Your task to perform on an android device: Search for vegetarian restaurants on Maps Image 0: 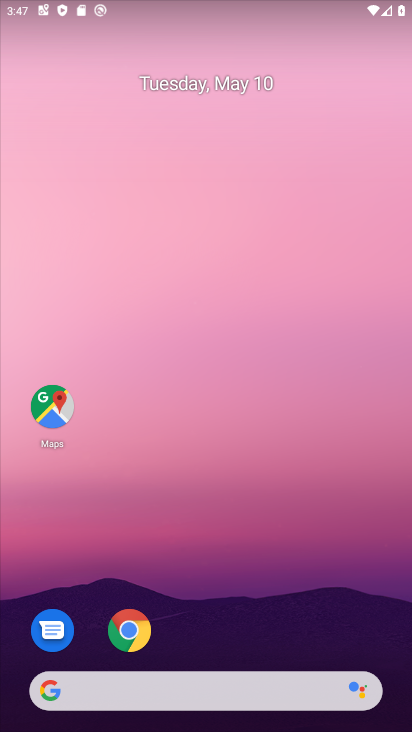
Step 0: click (62, 406)
Your task to perform on an android device: Search for vegetarian restaurants on Maps Image 1: 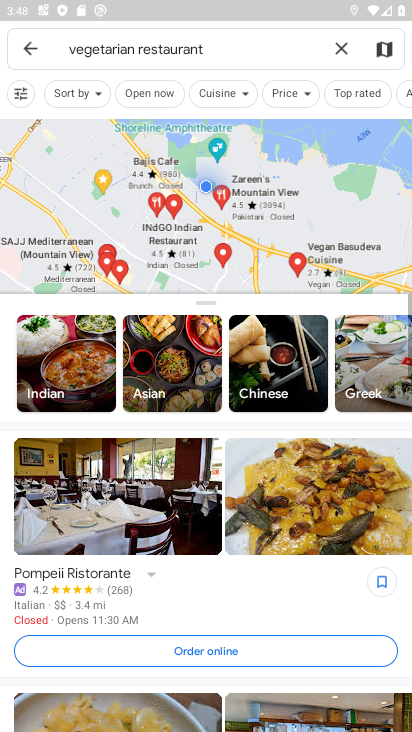
Step 1: task complete